Your task to perform on an android device: turn on location history Image 0: 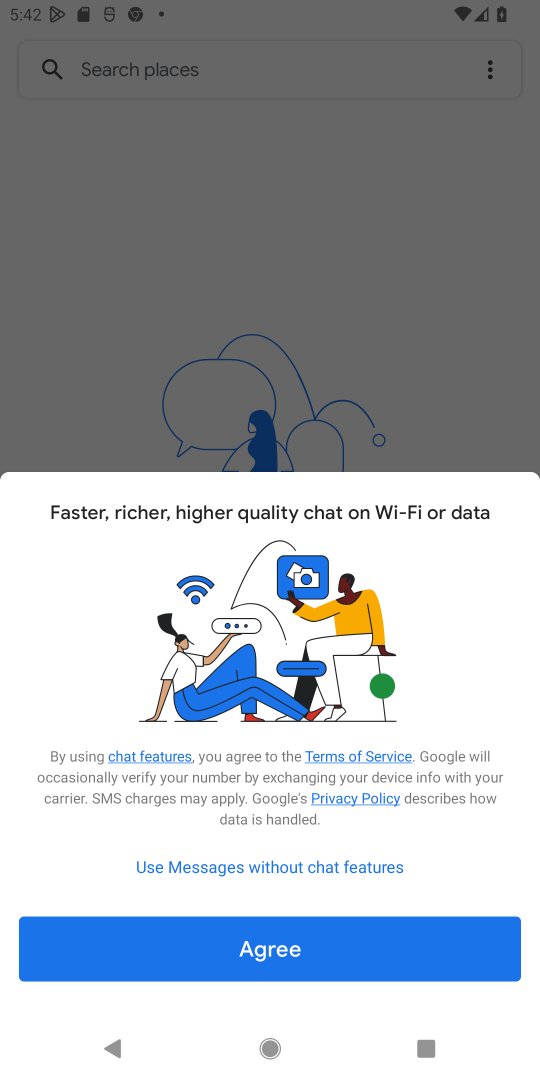
Step 0: press home button
Your task to perform on an android device: turn on location history Image 1: 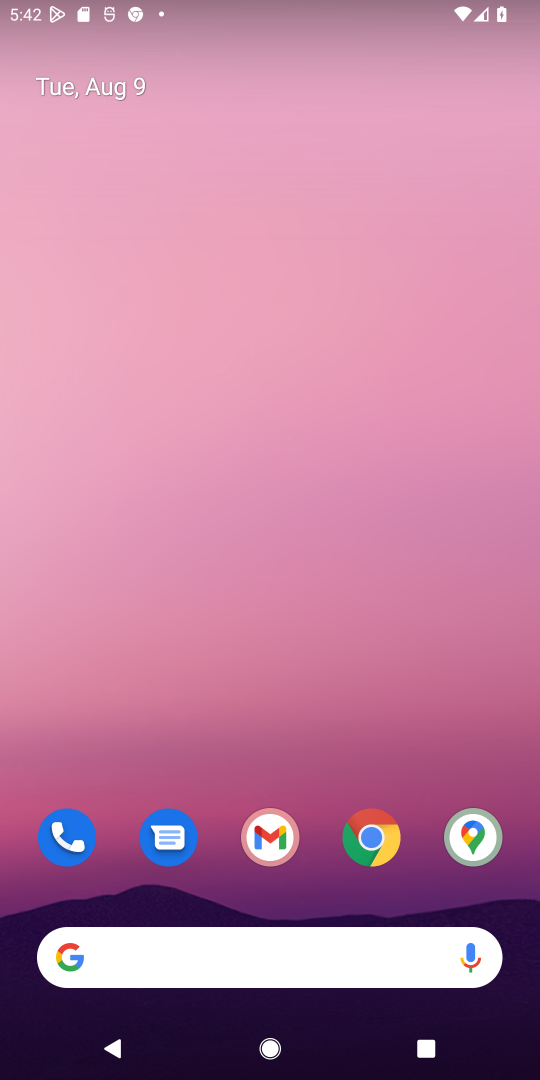
Step 1: drag from (250, 777) to (257, 285)
Your task to perform on an android device: turn on location history Image 2: 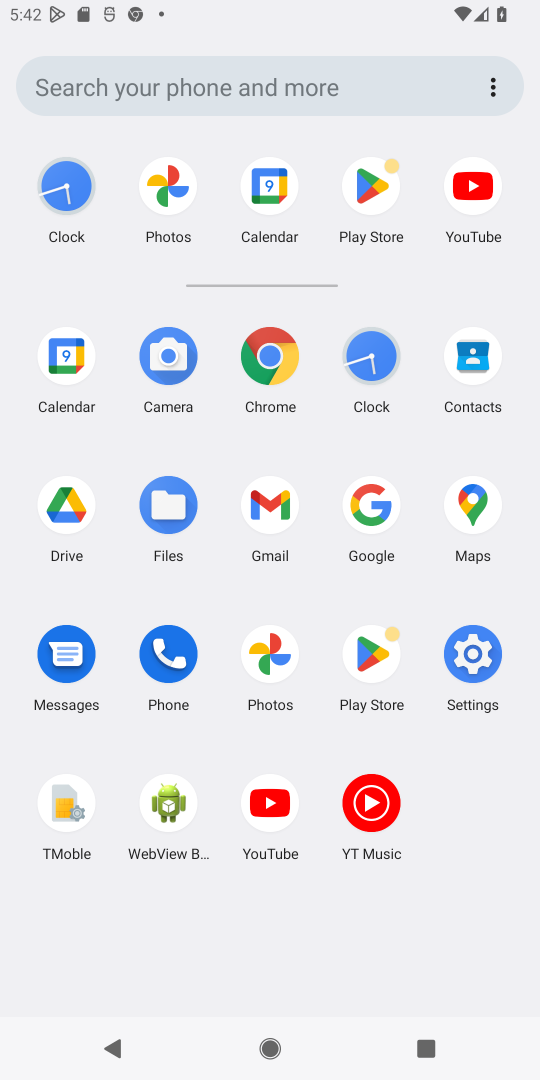
Step 2: click (462, 644)
Your task to perform on an android device: turn on location history Image 3: 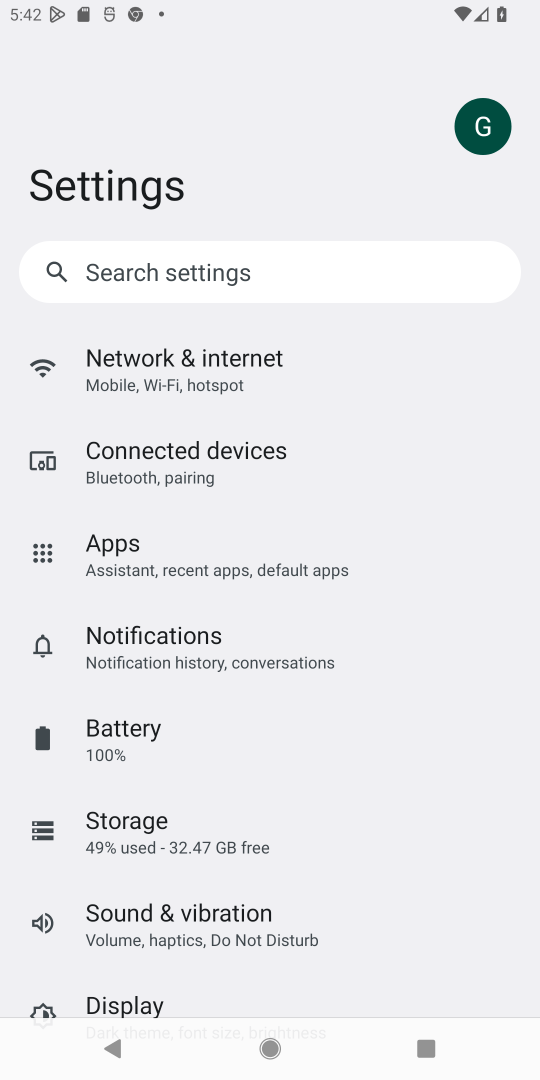
Step 3: drag from (161, 840) to (211, 214)
Your task to perform on an android device: turn on location history Image 4: 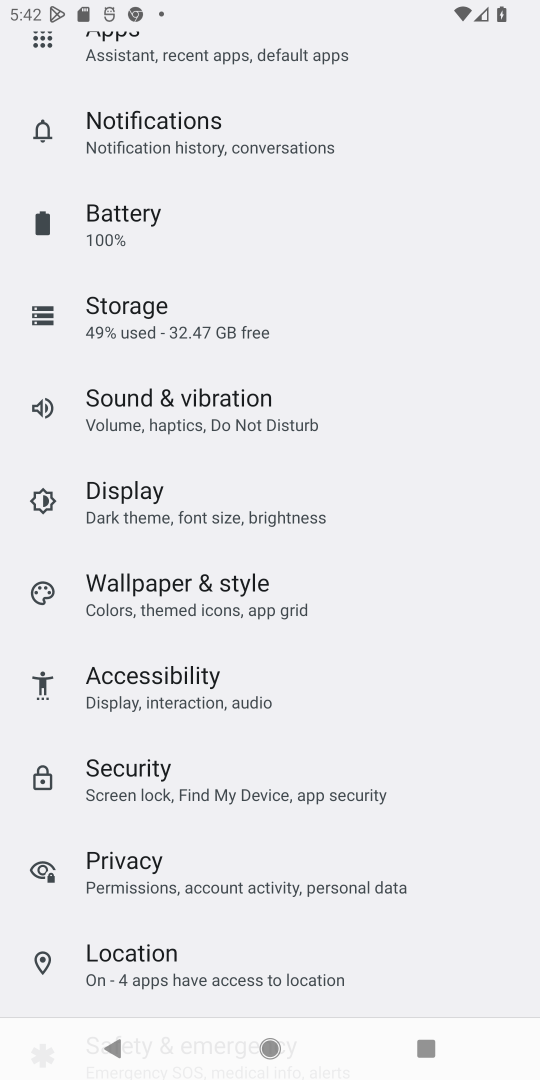
Step 4: click (205, 965)
Your task to perform on an android device: turn on location history Image 5: 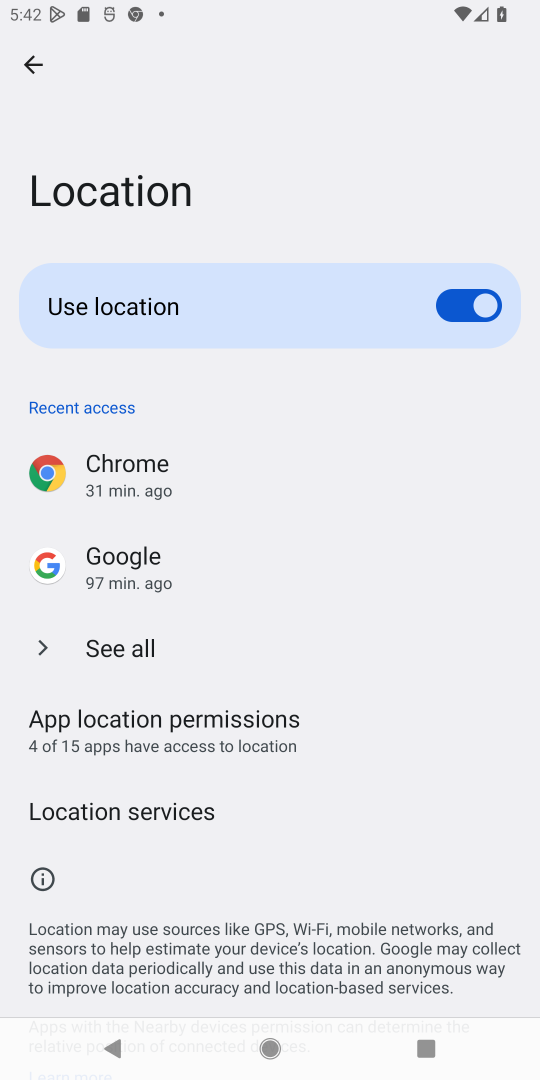
Step 5: click (132, 649)
Your task to perform on an android device: turn on location history Image 6: 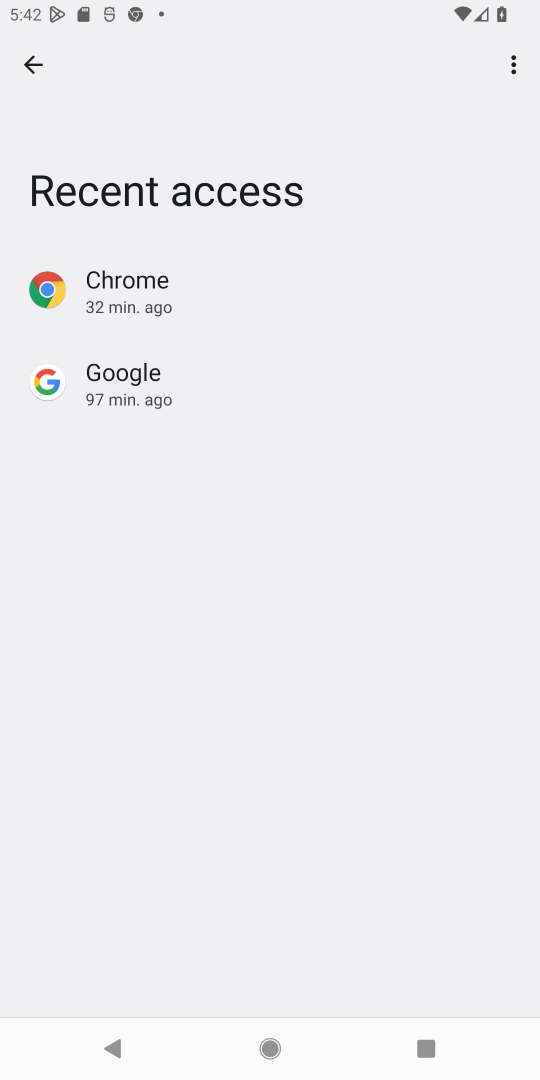
Step 6: click (50, 47)
Your task to perform on an android device: turn on location history Image 7: 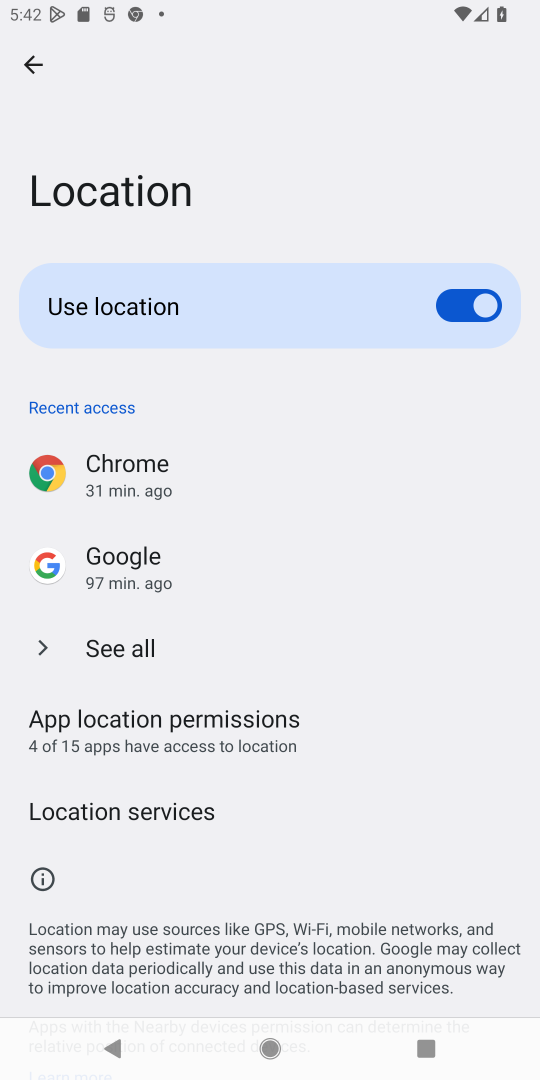
Step 7: click (143, 811)
Your task to perform on an android device: turn on location history Image 8: 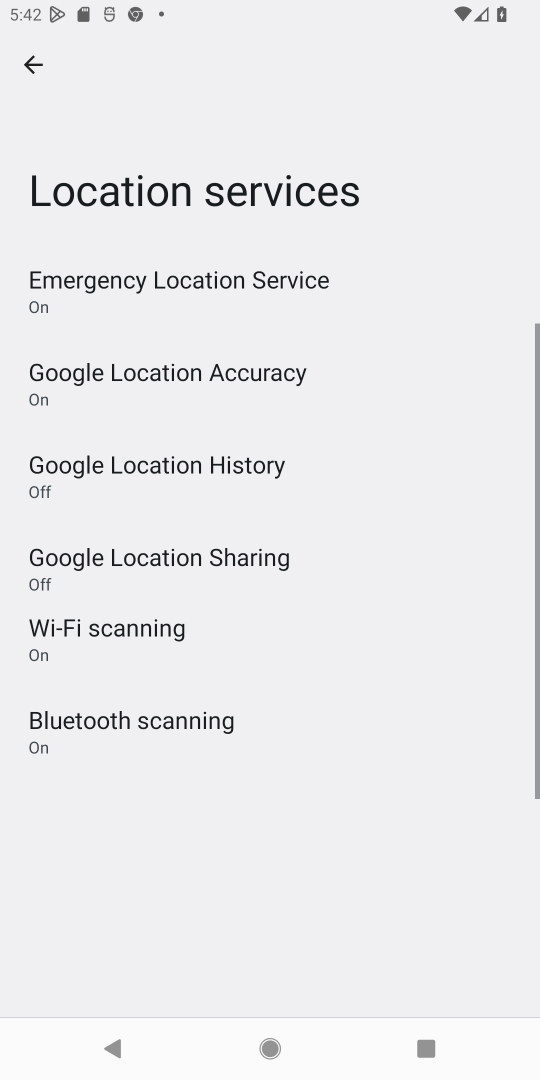
Step 8: click (249, 504)
Your task to perform on an android device: turn on location history Image 9: 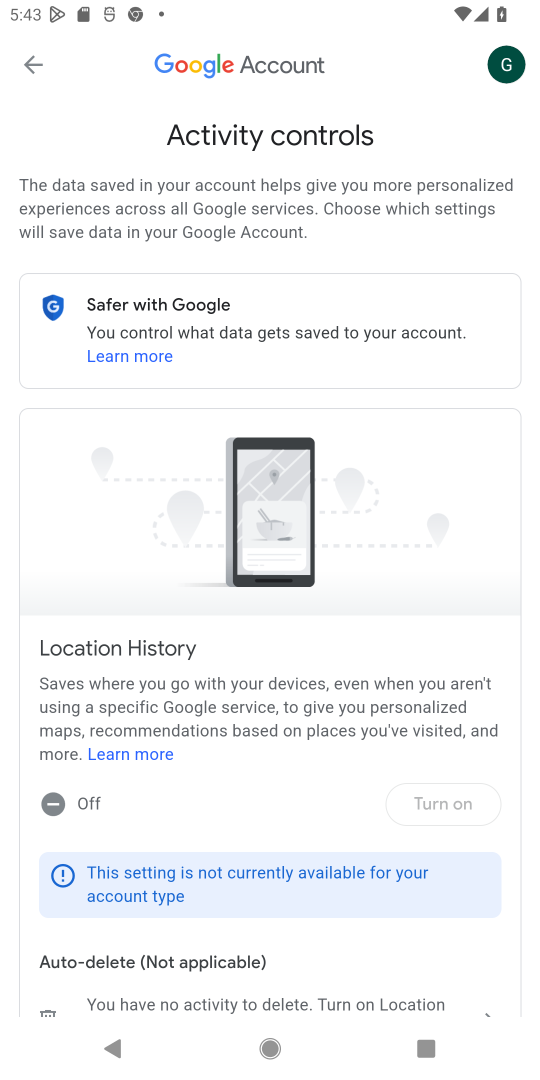
Step 9: click (93, 806)
Your task to perform on an android device: turn on location history Image 10: 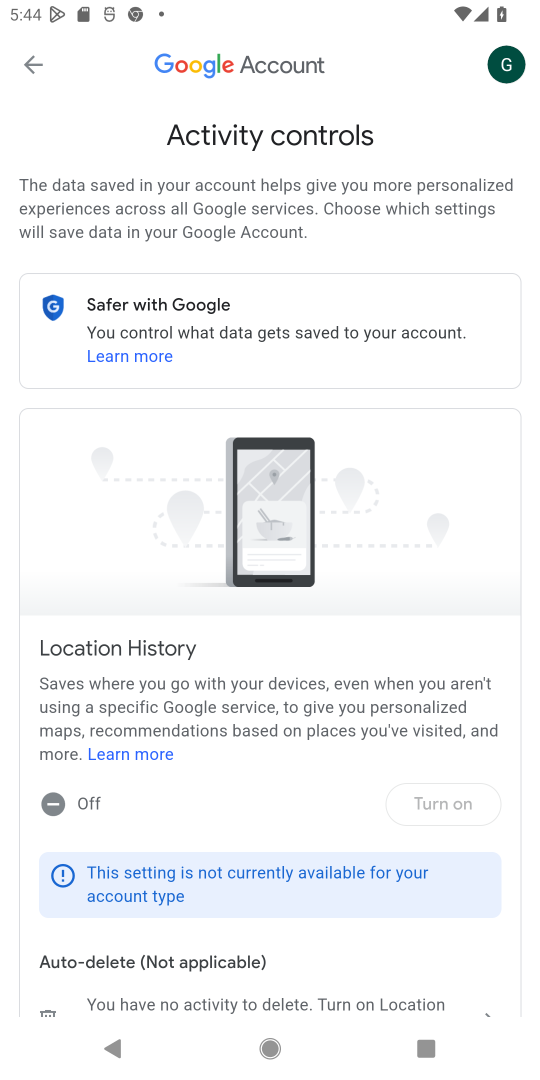
Step 10: task complete